Your task to perform on an android device: clear history in the chrome app Image 0: 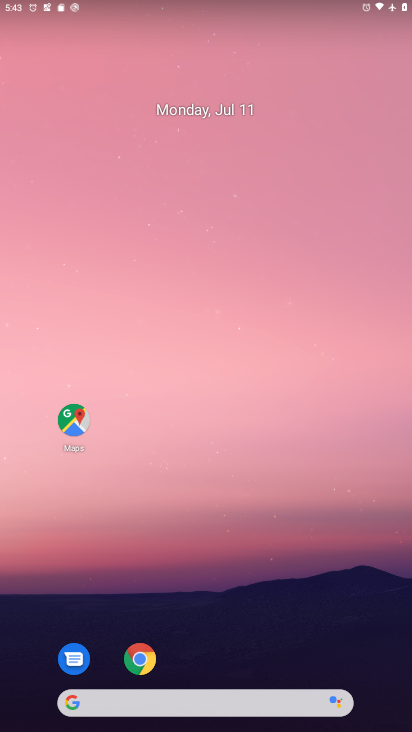
Step 0: click (139, 656)
Your task to perform on an android device: clear history in the chrome app Image 1: 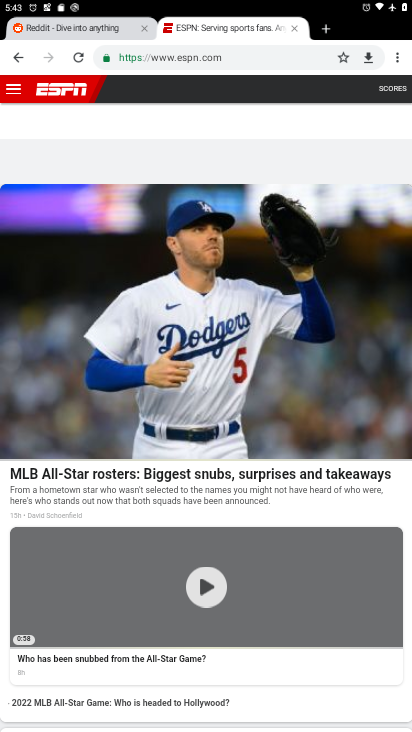
Step 1: click (395, 62)
Your task to perform on an android device: clear history in the chrome app Image 2: 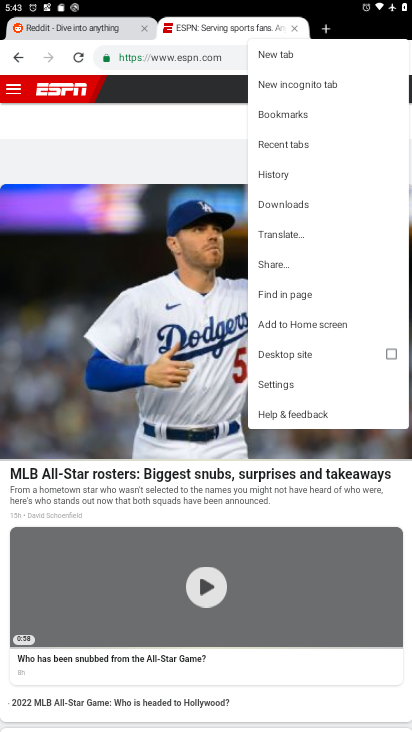
Step 2: click (275, 172)
Your task to perform on an android device: clear history in the chrome app Image 3: 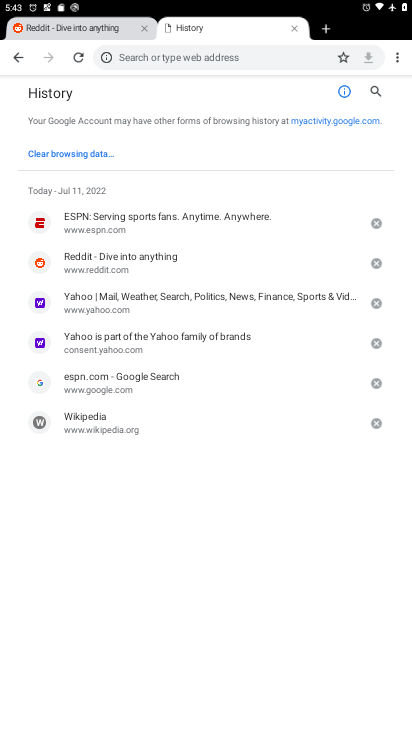
Step 3: click (60, 153)
Your task to perform on an android device: clear history in the chrome app Image 4: 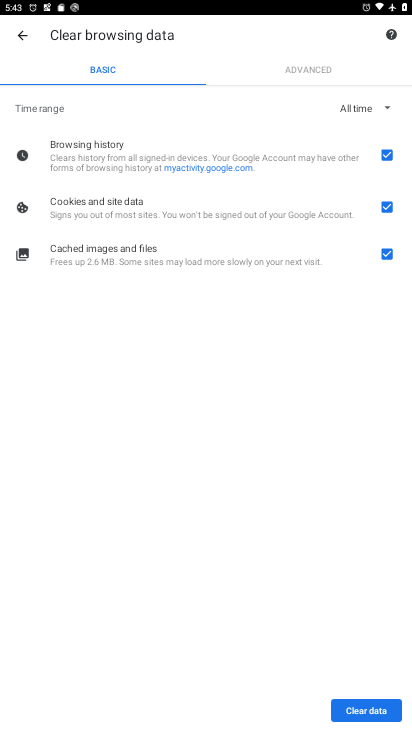
Step 4: click (386, 204)
Your task to perform on an android device: clear history in the chrome app Image 5: 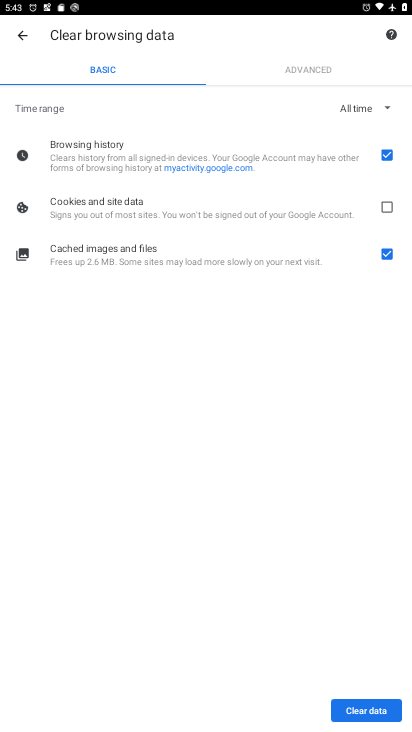
Step 5: click (390, 254)
Your task to perform on an android device: clear history in the chrome app Image 6: 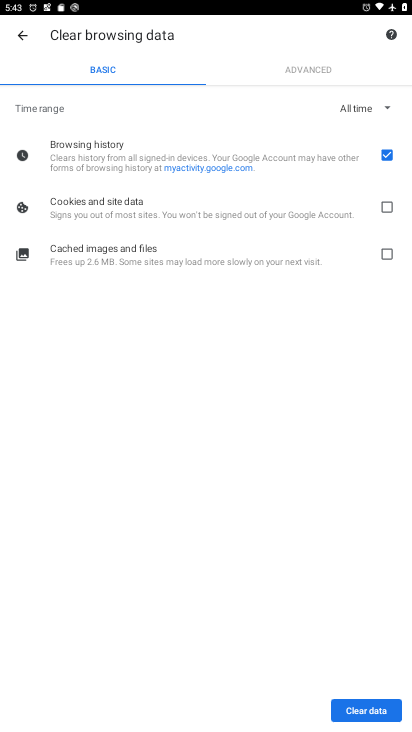
Step 6: click (363, 709)
Your task to perform on an android device: clear history in the chrome app Image 7: 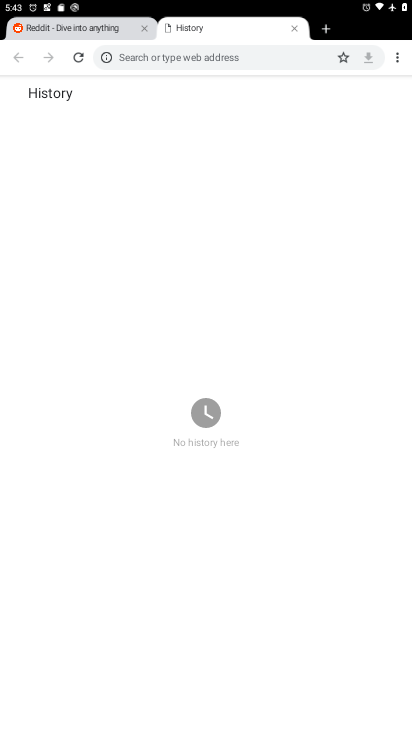
Step 7: task complete